Your task to perform on an android device: Go to battery settings Image 0: 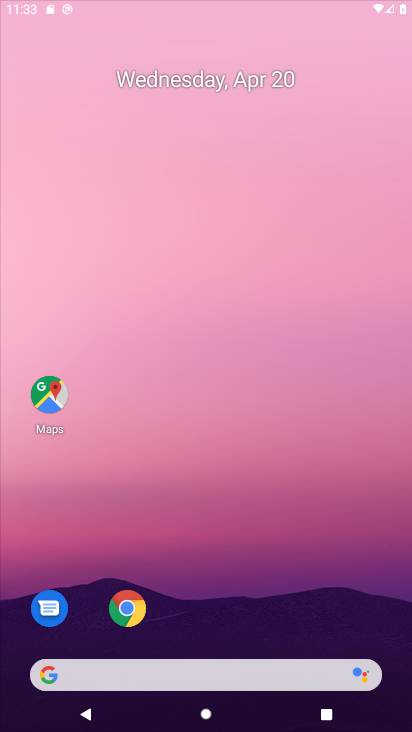
Step 0: click (275, 56)
Your task to perform on an android device: Go to battery settings Image 1: 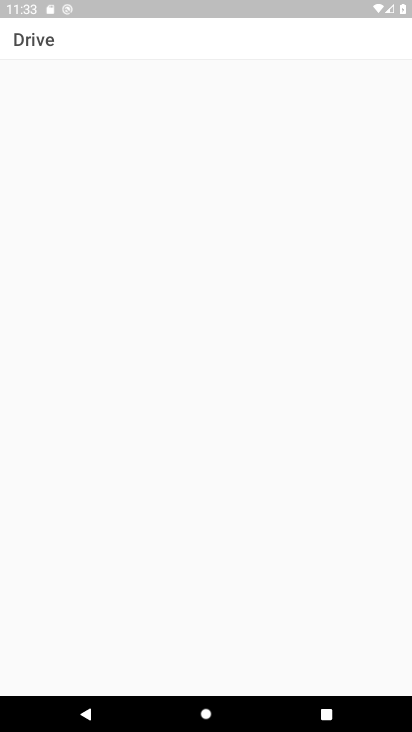
Step 1: press home button
Your task to perform on an android device: Go to battery settings Image 2: 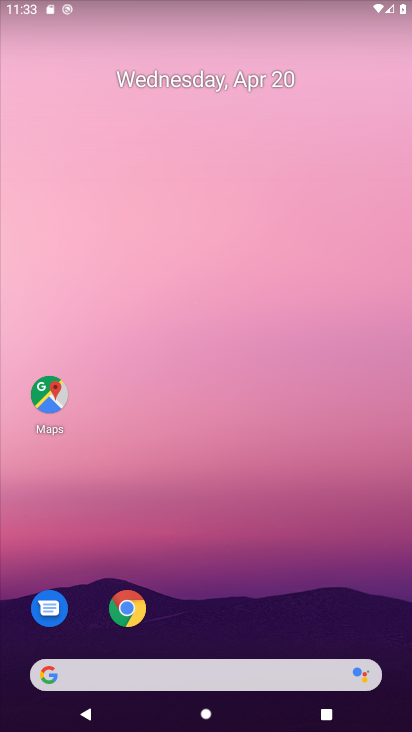
Step 2: drag from (200, 464) to (226, 100)
Your task to perform on an android device: Go to battery settings Image 3: 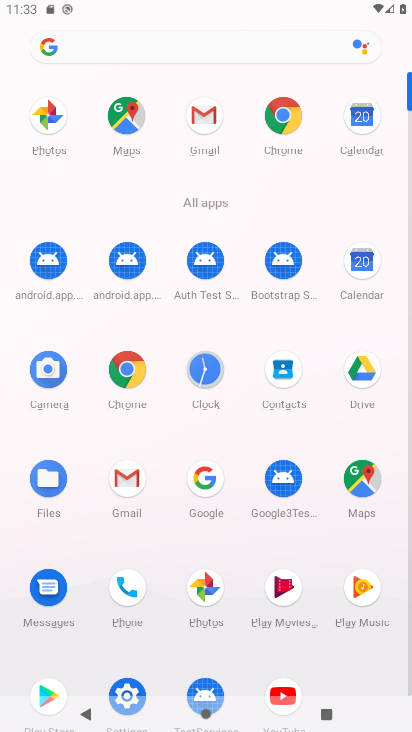
Step 3: click (127, 688)
Your task to perform on an android device: Go to battery settings Image 4: 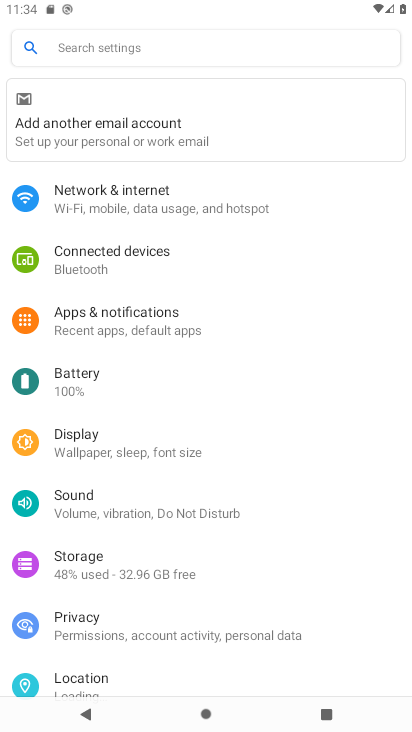
Step 4: click (106, 376)
Your task to perform on an android device: Go to battery settings Image 5: 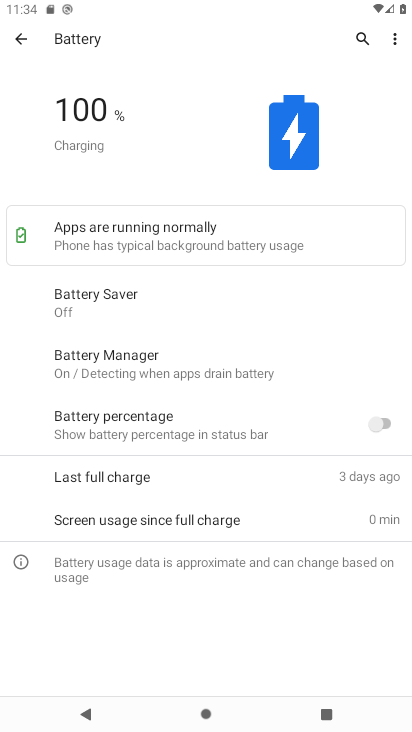
Step 5: task complete